Your task to perform on an android device: Open Reddit.com Image 0: 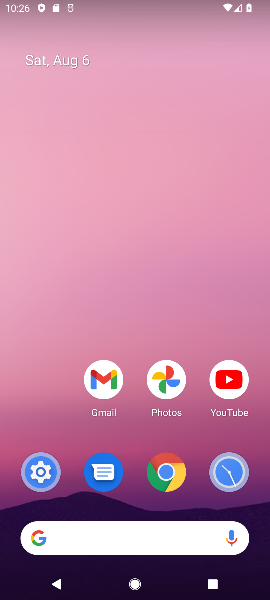
Step 0: drag from (139, 563) to (37, 112)
Your task to perform on an android device: Open Reddit.com Image 1: 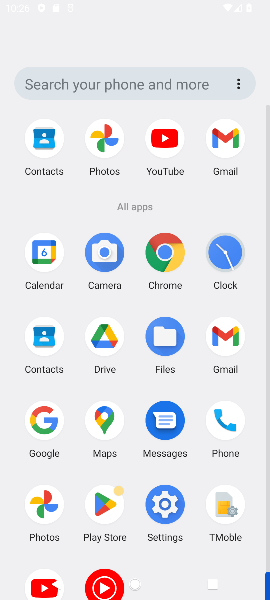
Step 1: drag from (171, 480) to (138, 225)
Your task to perform on an android device: Open Reddit.com Image 2: 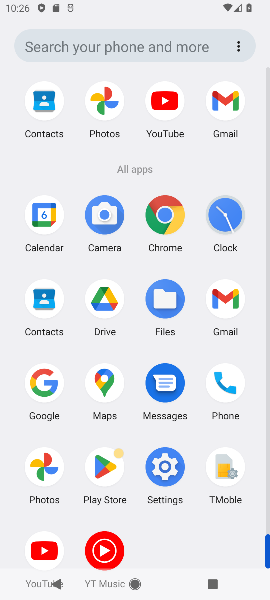
Step 2: drag from (164, 470) to (108, 178)
Your task to perform on an android device: Open Reddit.com Image 3: 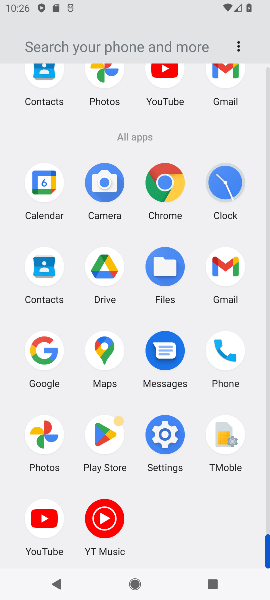
Step 3: click (154, 191)
Your task to perform on an android device: Open Reddit.com Image 4: 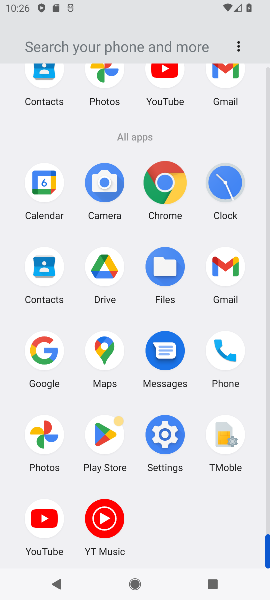
Step 4: click (161, 183)
Your task to perform on an android device: Open Reddit.com Image 5: 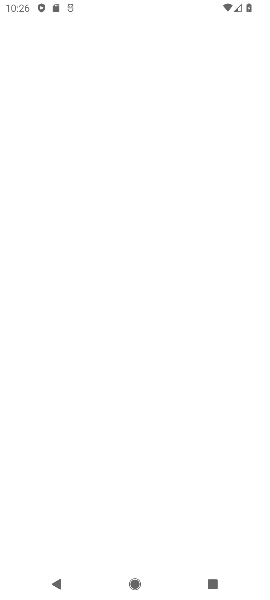
Step 5: click (167, 177)
Your task to perform on an android device: Open Reddit.com Image 6: 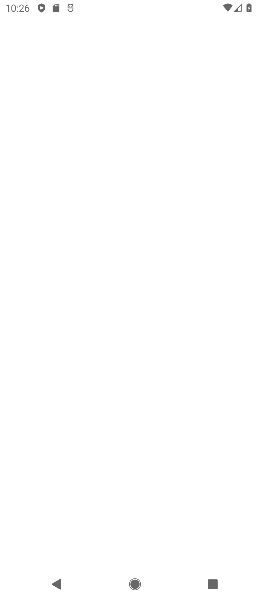
Step 6: click (167, 177)
Your task to perform on an android device: Open Reddit.com Image 7: 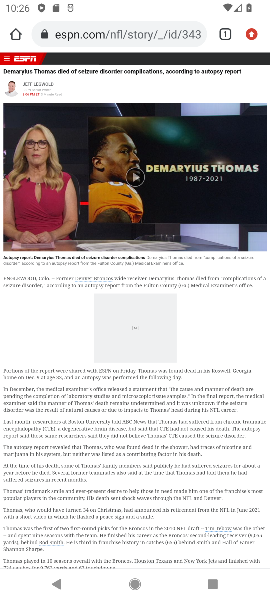
Step 7: drag from (253, 29) to (145, 113)
Your task to perform on an android device: Open Reddit.com Image 8: 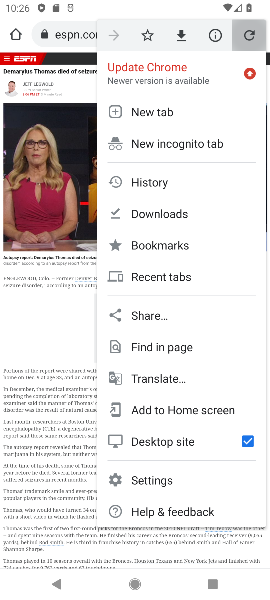
Step 8: click (154, 110)
Your task to perform on an android device: Open Reddit.com Image 9: 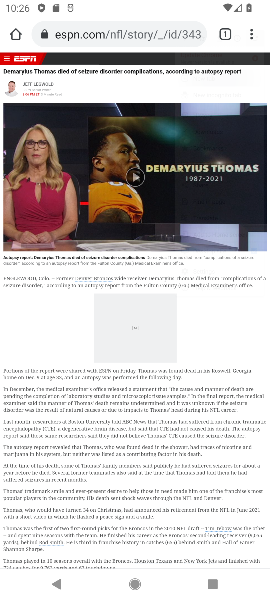
Step 9: click (157, 109)
Your task to perform on an android device: Open Reddit.com Image 10: 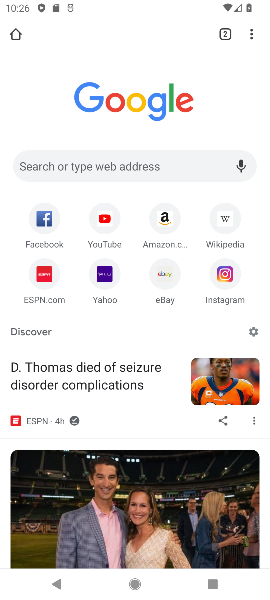
Step 10: click (65, 169)
Your task to perform on an android device: Open Reddit.com Image 11: 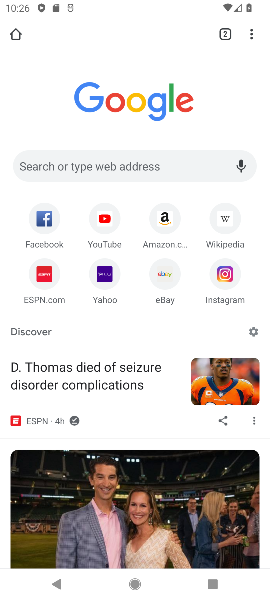
Step 11: click (67, 169)
Your task to perform on an android device: Open Reddit.com Image 12: 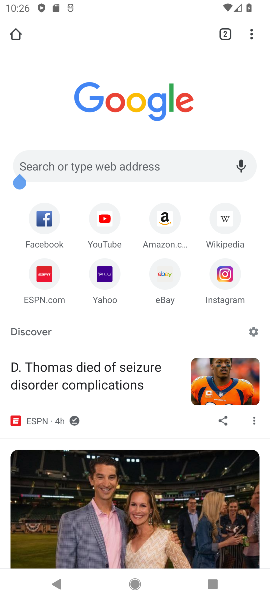
Step 12: click (67, 169)
Your task to perform on an android device: Open Reddit.com Image 13: 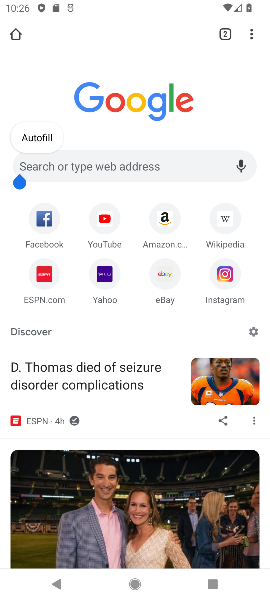
Step 13: click (69, 169)
Your task to perform on an android device: Open Reddit.com Image 14: 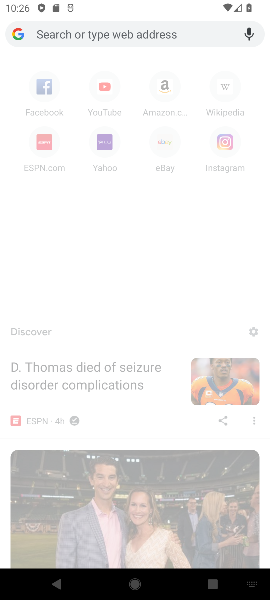
Step 14: type "reddit.com"
Your task to perform on an android device: Open Reddit.com Image 15: 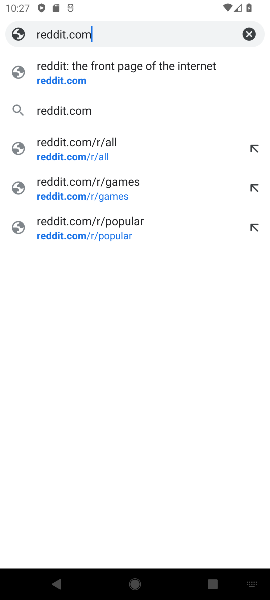
Step 15: click (51, 63)
Your task to perform on an android device: Open Reddit.com Image 16: 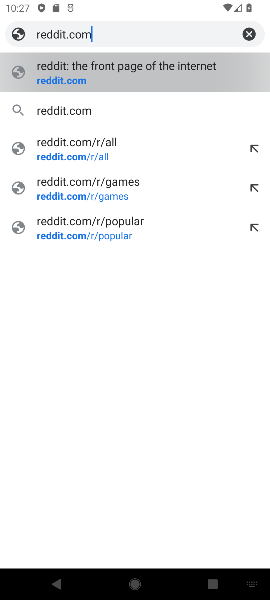
Step 16: click (51, 63)
Your task to perform on an android device: Open Reddit.com Image 17: 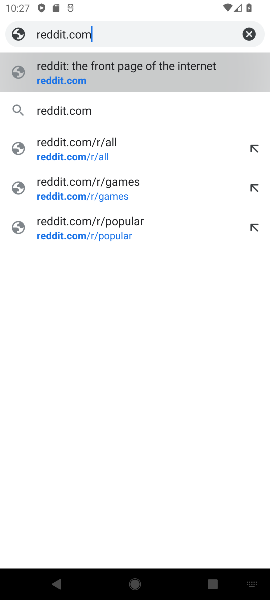
Step 17: click (53, 63)
Your task to perform on an android device: Open Reddit.com Image 18: 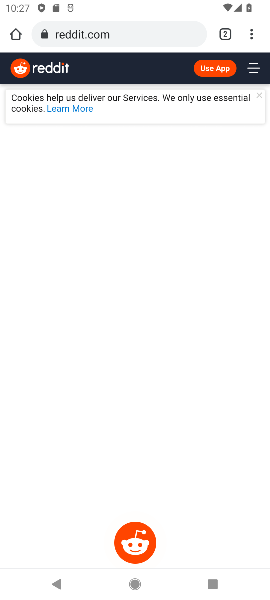
Step 18: task complete